Your task to perform on an android device: toggle priority inbox in the gmail app Image 0: 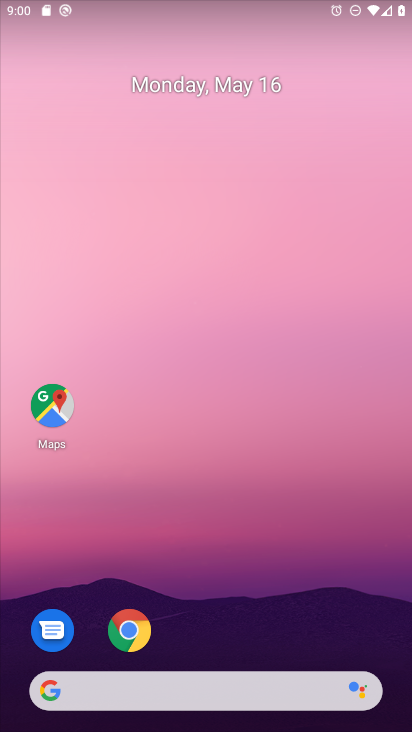
Step 0: drag from (294, 639) to (303, 52)
Your task to perform on an android device: toggle priority inbox in the gmail app Image 1: 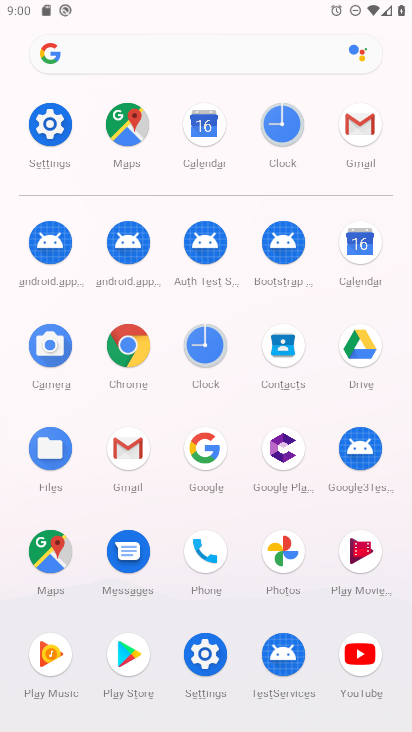
Step 1: click (378, 140)
Your task to perform on an android device: toggle priority inbox in the gmail app Image 2: 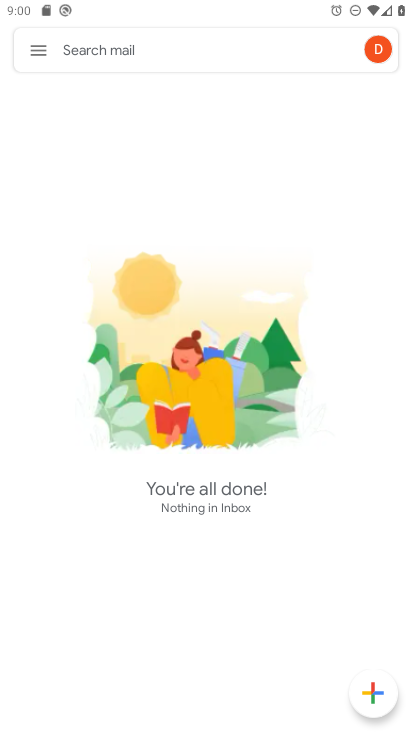
Step 2: click (34, 65)
Your task to perform on an android device: toggle priority inbox in the gmail app Image 3: 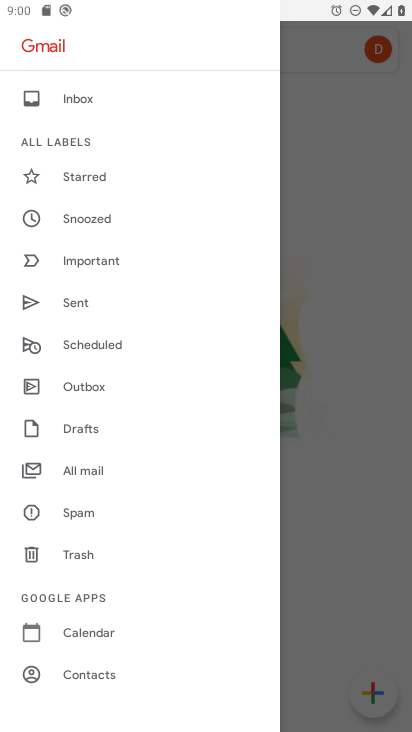
Step 3: drag from (103, 564) to (75, 203)
Your task to perform on an android device: toggle priority inbox in the gmail app Image 4: 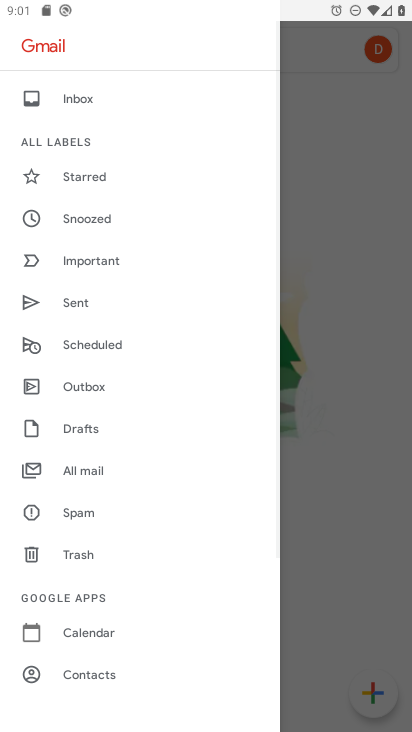
Step 4: click (83, 90)
Your task to perform on an android device: toggle priority inbox in the gmail app Image 5: 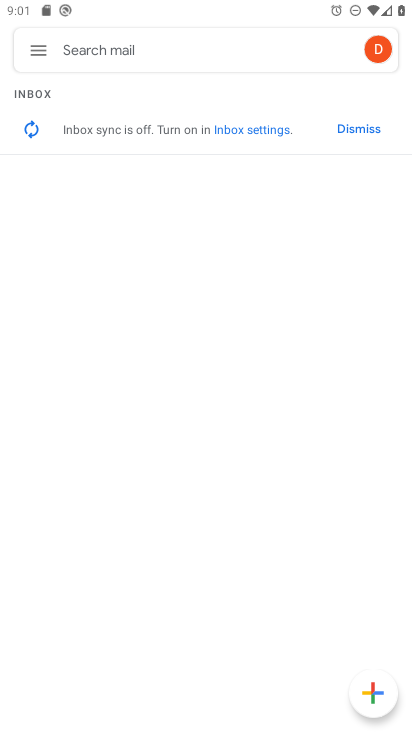
Step 5: click (35, 38)
Your task to perform on an android device: toggle priority inbox in the gmail app Image 6: 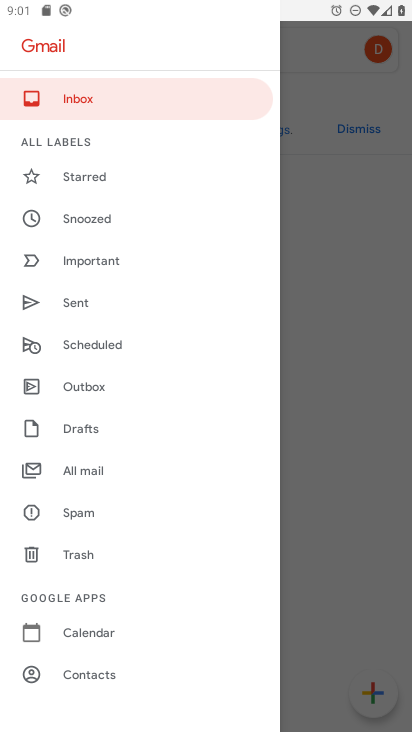
Step 6: click (94, 444)
Your task to perform on an android device: toggle priority inbox in the gmail app Image 7: 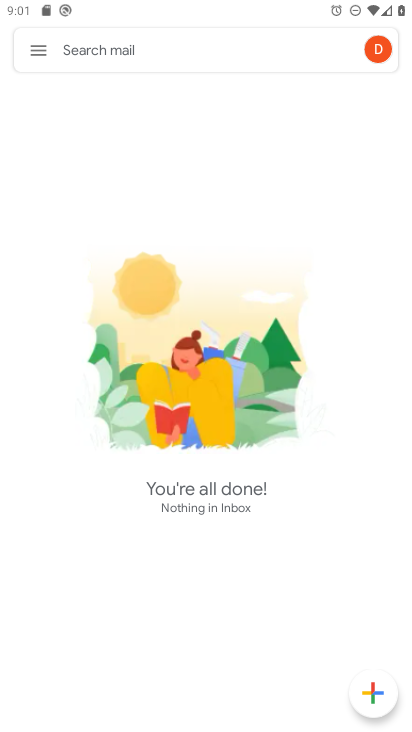
Step 7: task complete